Your task to perform on an android device: turn off notifications in google photos Image 0: 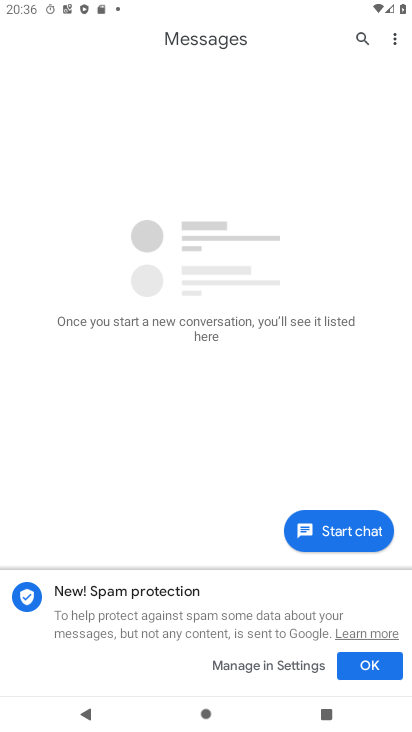
Step 0: press home button
Your task to perform on an android device: turn off notifications in google photos Image 1: 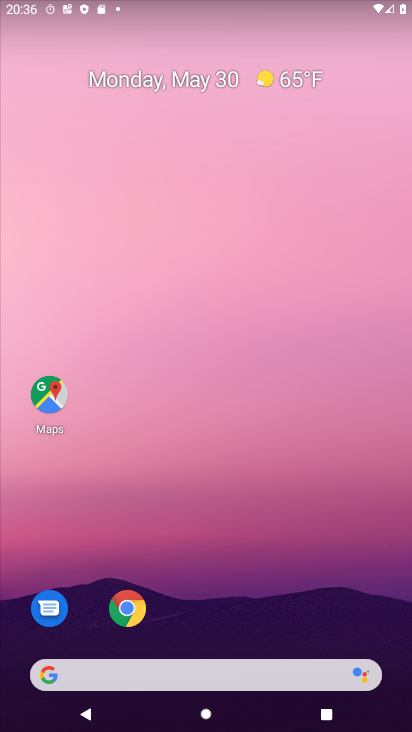
Step 1: drag from (200, 635) to (184, 241)
Your task to perform on an android device: turn off notifications in google photos Image 2: 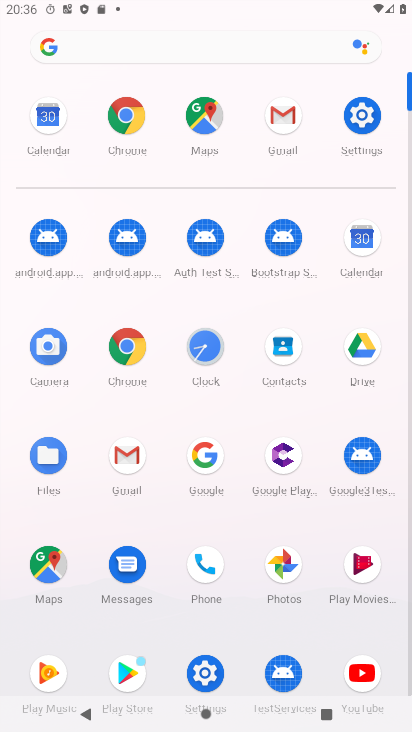
Step 2: click (283, 570)
Your task to perform on an android device: turn off notifications in google photos Image 3: 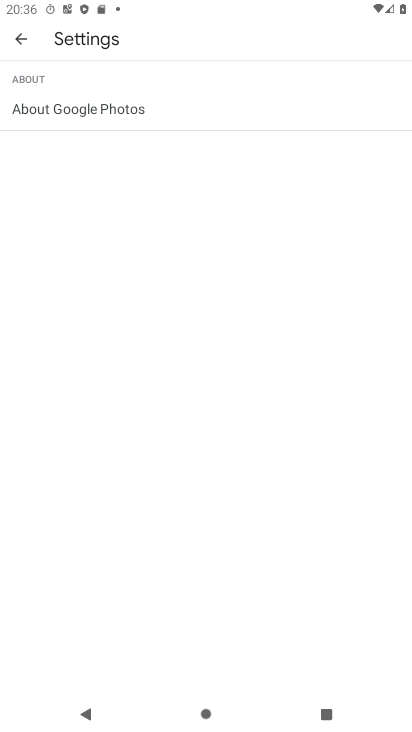
Step 3: click (25, 44)
Your task to perform on an android device: turn off notifications in google photos Image 4: 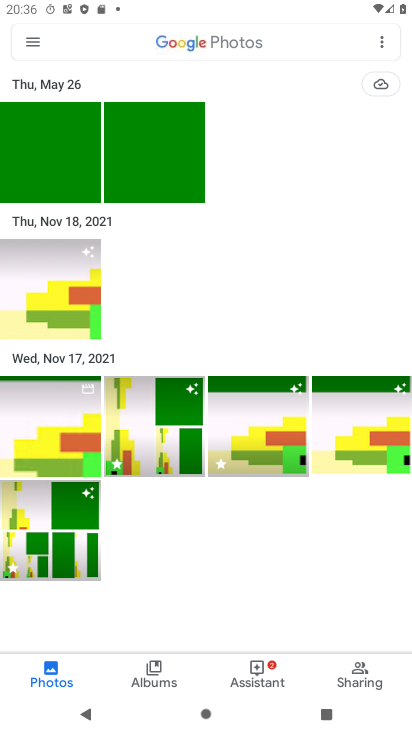
Step 4: click (25, 44)
Your task to perform on an android device: turn off notifications in google photos Image 5: 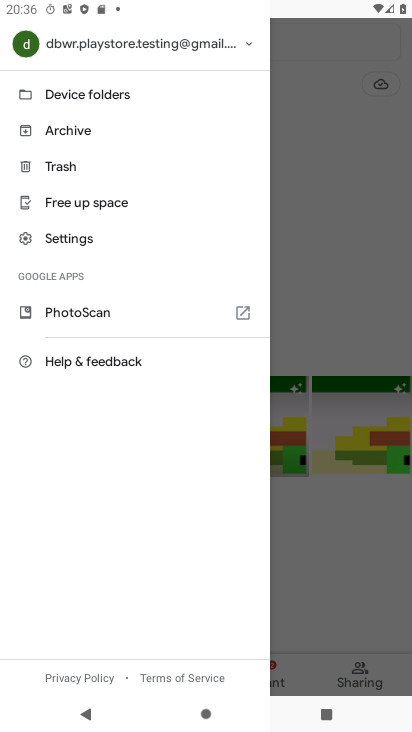
Step 5: click (101, 233)
Your task to perform on an android device: turn off notifications in google photos Image 6: 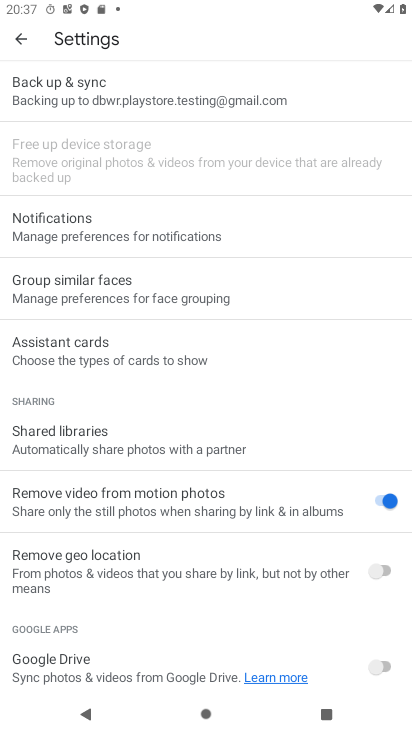
Step 6: click (132, 240)
Your task to perform on an android device: turn off notifications in google photos Image 7: 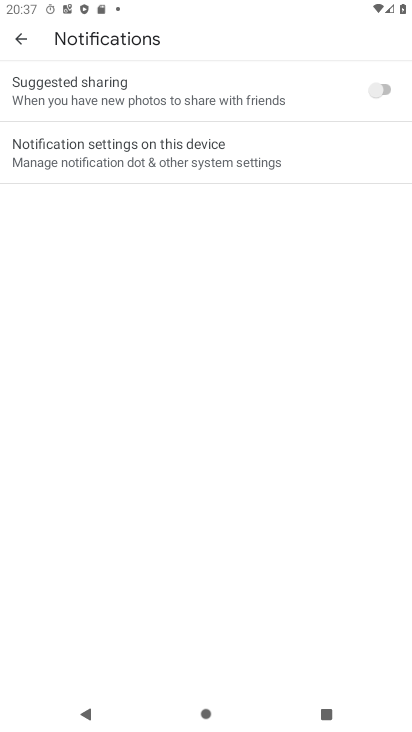
Step 7: click (127, 148)
Your task to perform on an android device: turn off notifications in google photos Image 8: 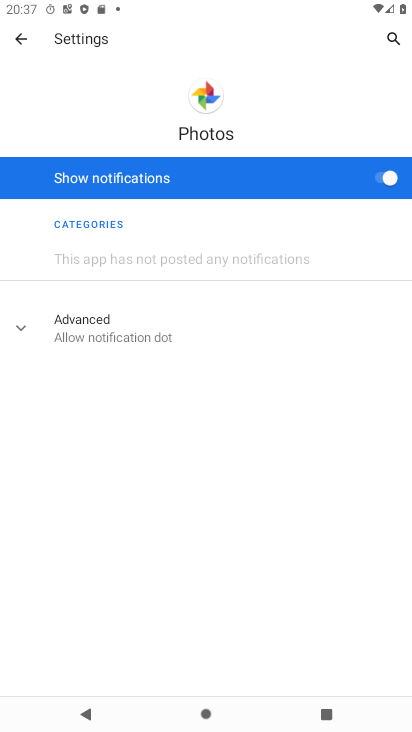
Step 8: click (375, 179)
Your task to perform on an android device: turn off notifications in google photos Image 9: 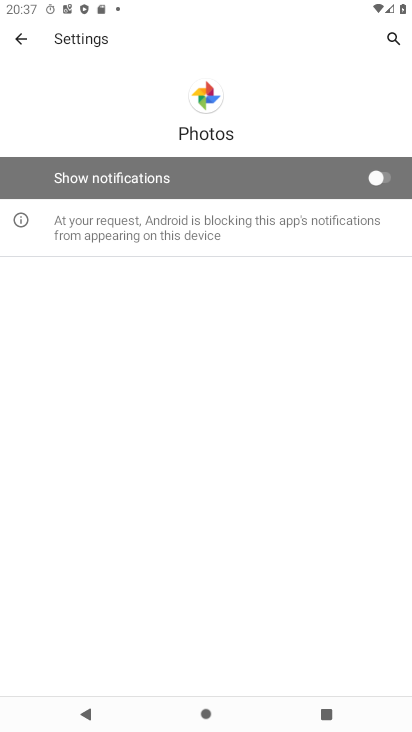
Step 9: task complete